Your task to perform on an android device: turn on wifi Image 0: 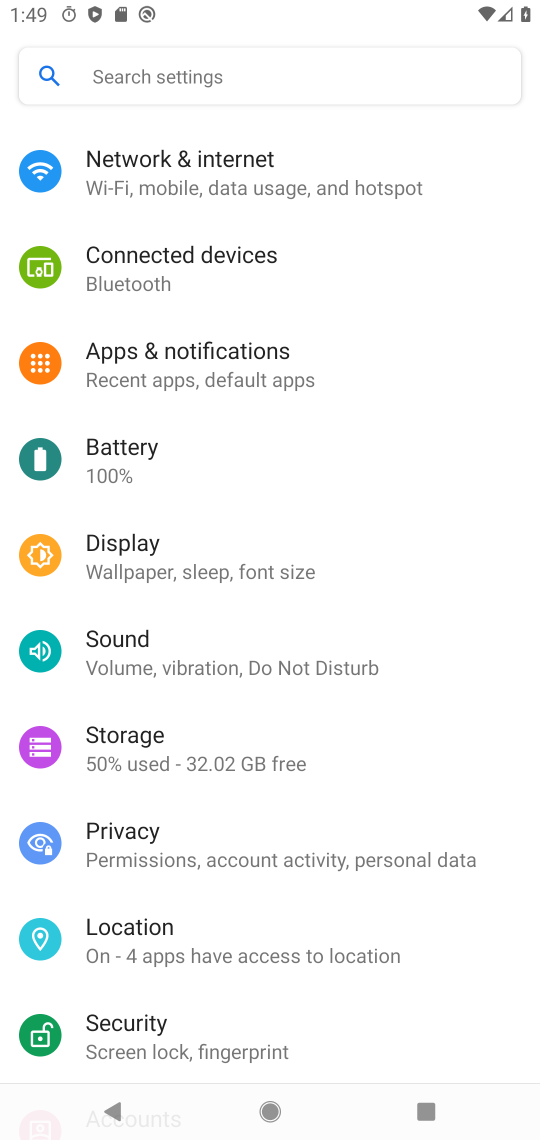
Step 0: press home button
Your task to perform on an android device: turn on wifi Image 1: 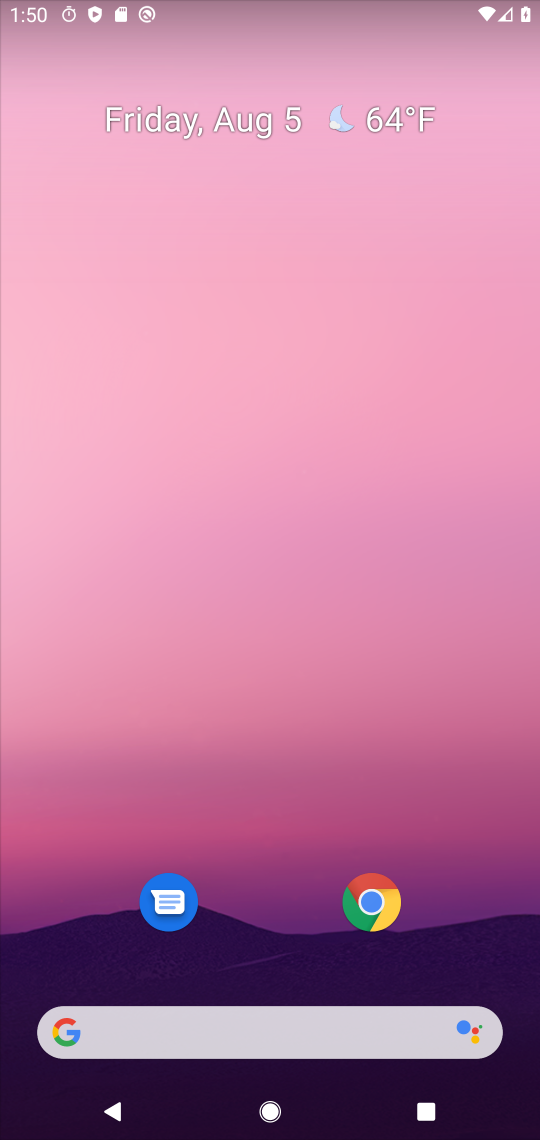
Step 1: drag from (282, 913) to (150, 144)
Your task to perform on an android device: turn on wifi Image 2: 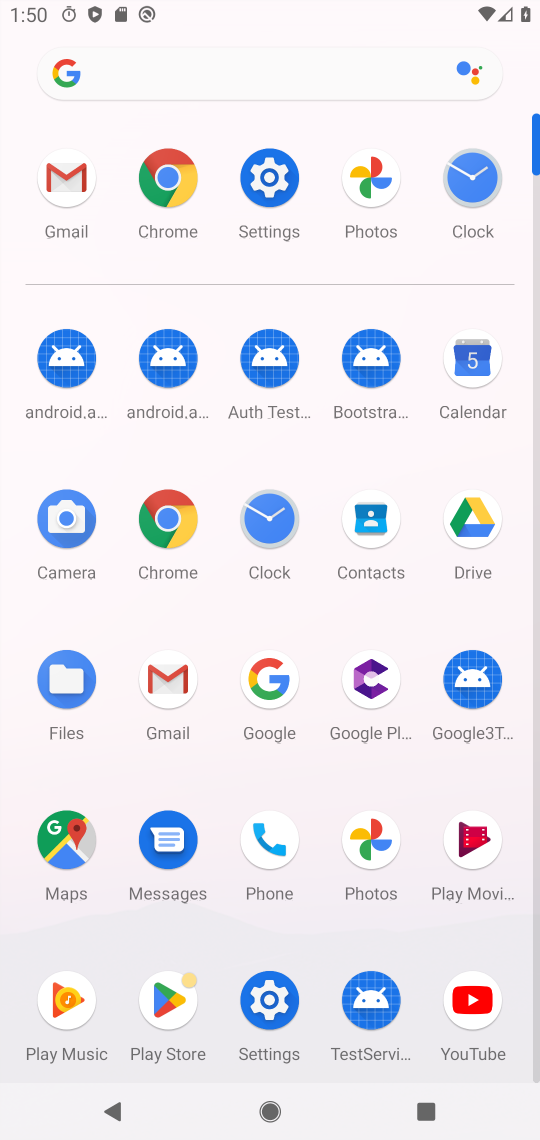
Step 2: click (256, 203)
Your task to perform on an android device: turn on wifi Image 3: 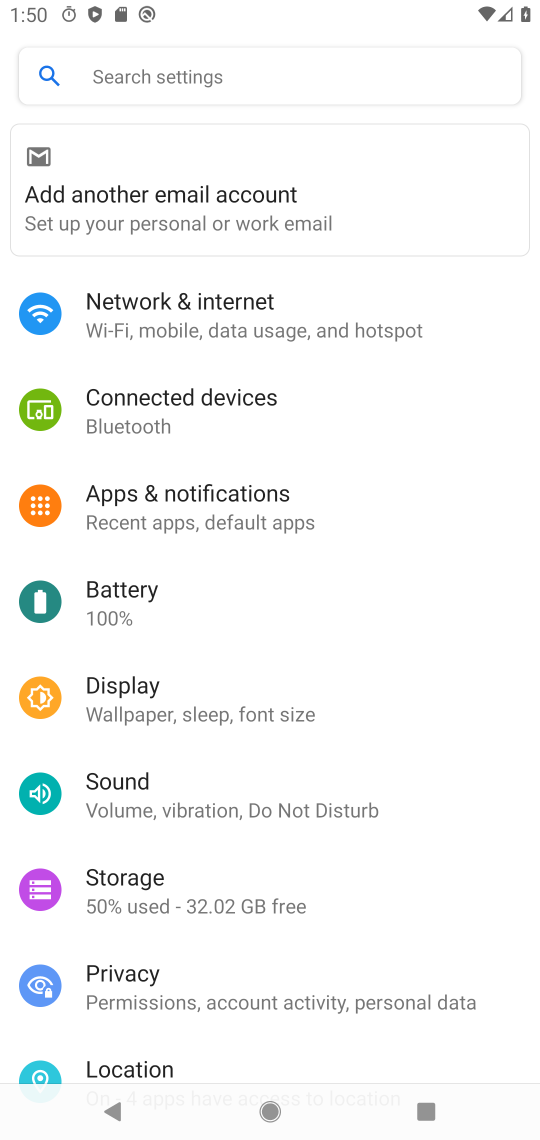
Step 3: click (173, 327)
Your task to perform on an android device: turn on wifi Image 4: 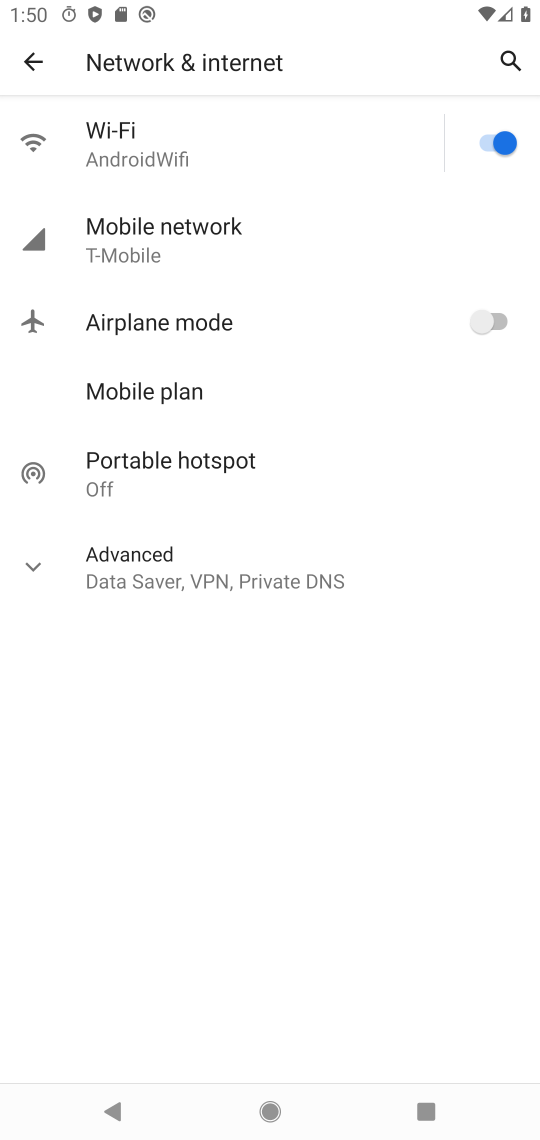
Step 4: click (185, 170)
Your task to perform on an android device: turn on wifi Image 5: 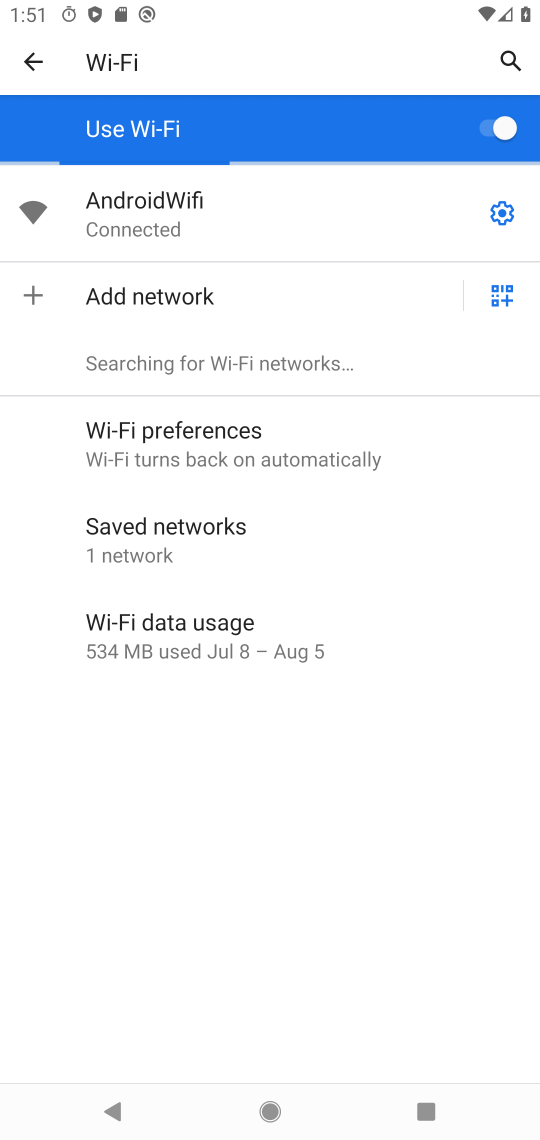
Step 5: task complete